Your task to perform on an android device: empty trash in the gmail app Image 0: 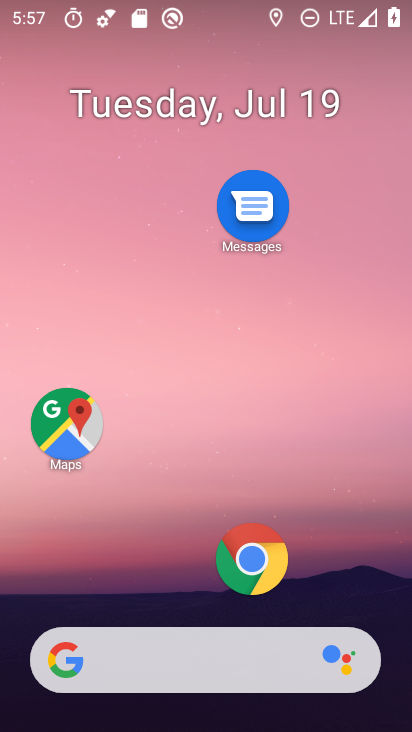
Step 0: drag from (126, 591) to (172, 13)
Your task to perform on an android device: empty trash in the gmail app Image 1: 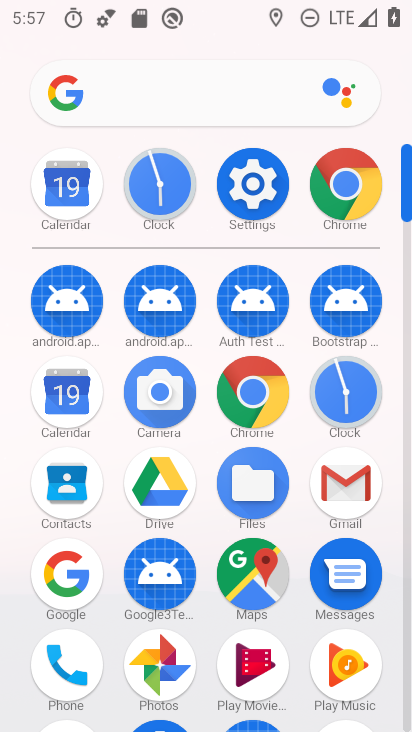
Step 1: click (346, 492)
Your task to perform on an android device: empty trash in the gmail app Image 2: 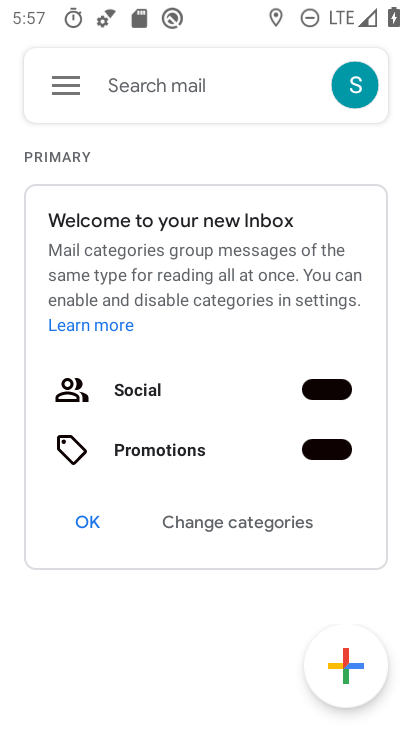
Step 2: click (70, 79)
Your task to perform on an android device: empty trash in the gmail app Image 3: 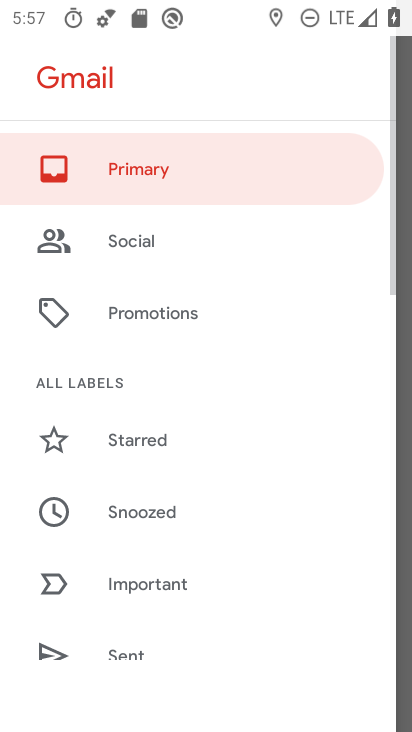
Step 3: drag from (240, 574) to (253, 25)
Your task to perform on an android device: empty trash in the gmail app Image 4: 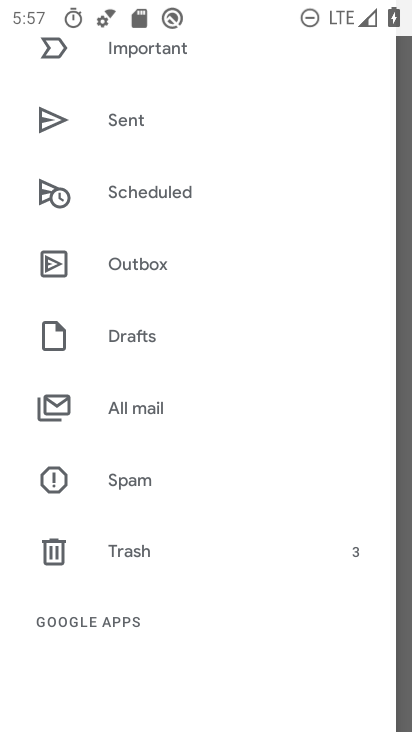
Step 4: click (144, 553)
Your task to perform on an android device: empty trash in the gmail app Image 5: 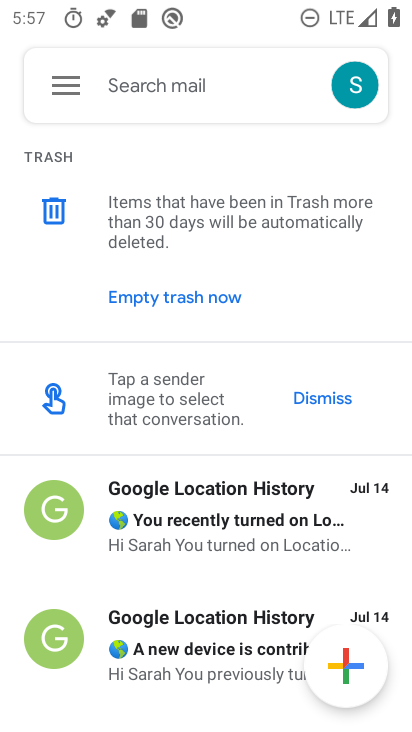
Step 5: click (175, 288)
Your task to perform on an android device: empty trash in the gmail app Image 6: 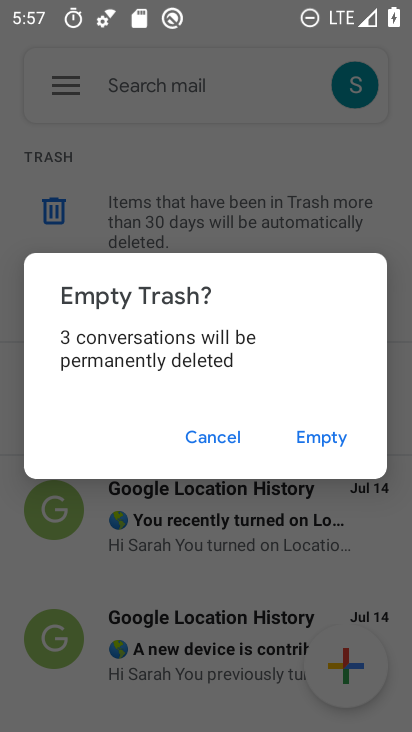
Step 6: click (314, 433)
Your task to perform on an android device: empty trash in the gmail app Image 7: 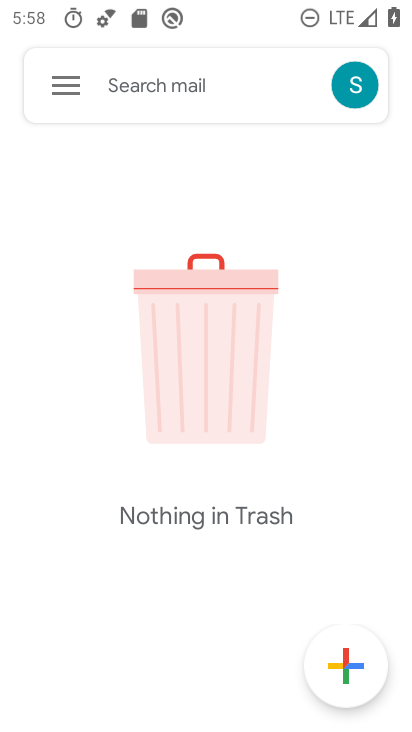
Step 7: task complete